Your task to perform on an android device: turn off translation in the chrome app Image 0: 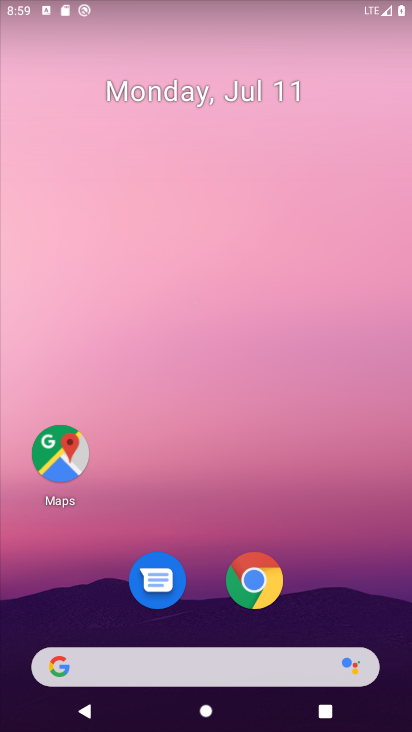
Step 0: click (262, 575)
Your task to perform on an android device: turn off translation in the chrome app Image 1: 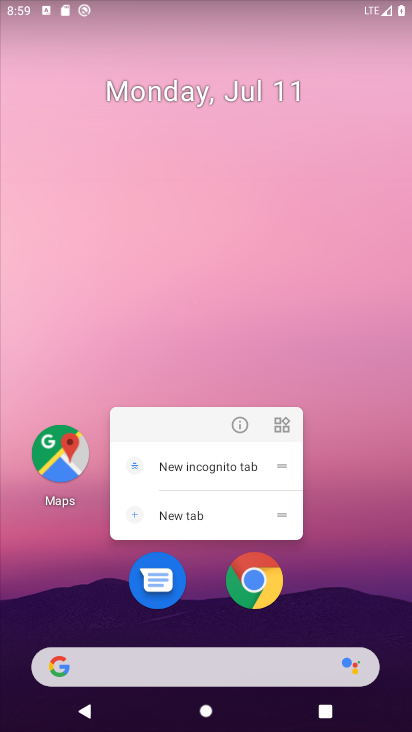
Step 1: click (260, 594)
Your task to perform on an android device: turn off translation in the chrome app Image 2: 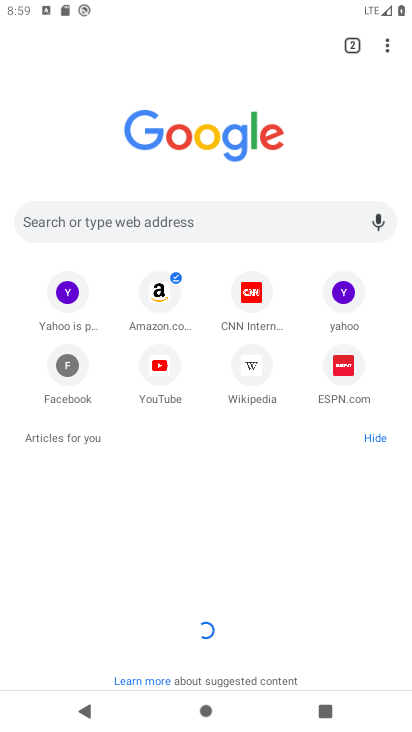
Step 2: click (388, 47)
Your task to perform on an android device: turn off translation in the chrome app Image 3: 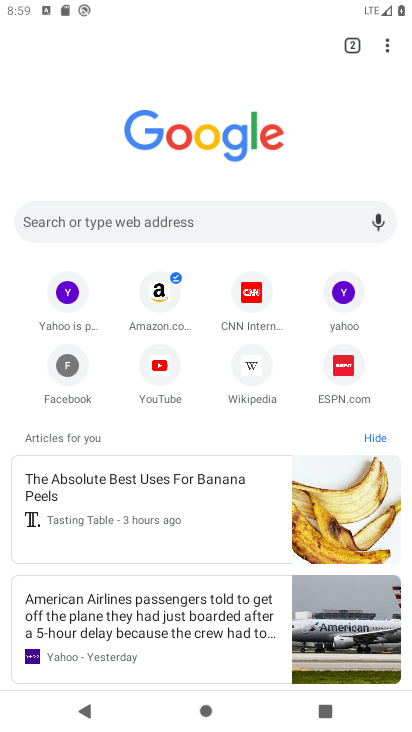
Step 3: click (388, 47)
Your task to perform on an android device: turn off translation in the chrome app Image 4: 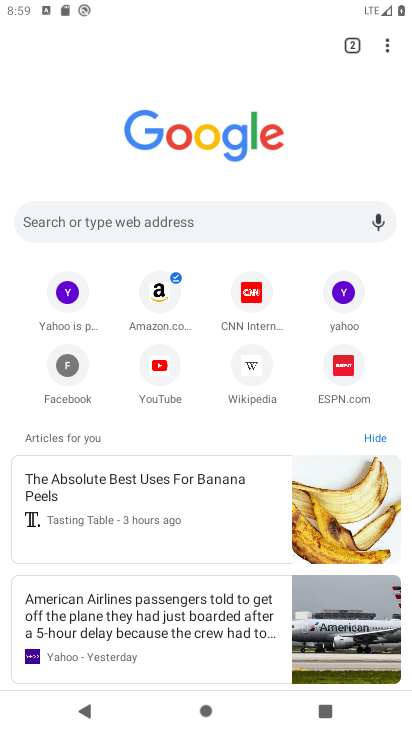
Step 4: click (388, 48)
Your task to perform on an android device: turn off translation in the chrome app Image 5: 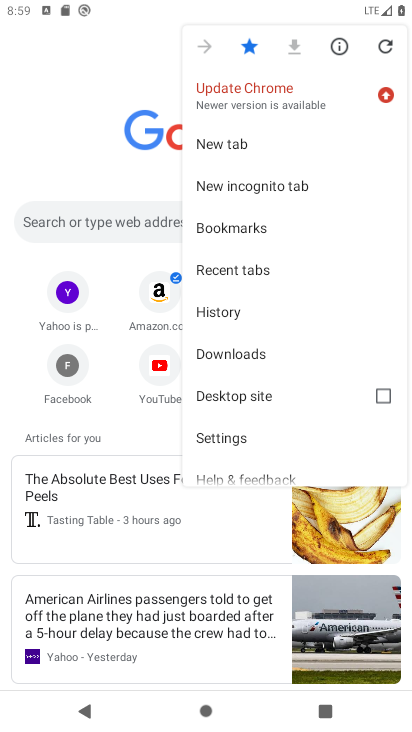
Step 5: click (244, 434)
Your task to perform on an android device: turn off translation in the chrome app Image 6: 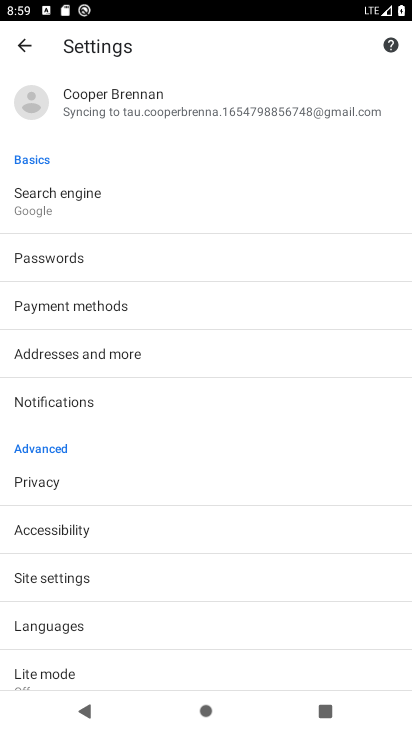
Step 6: click (198, 629)
Your task to perform on an android device: turn off translation in the chrome app Image 7: 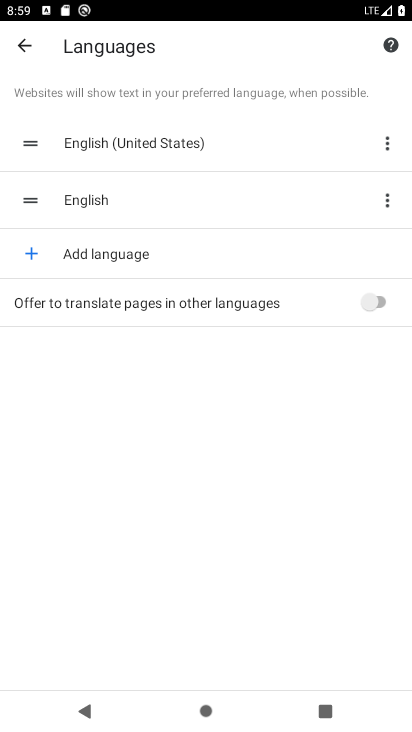
Step 7: task complete